Your task to perform on an android device: Show me some nice wallpapers for my tablet Image 0: 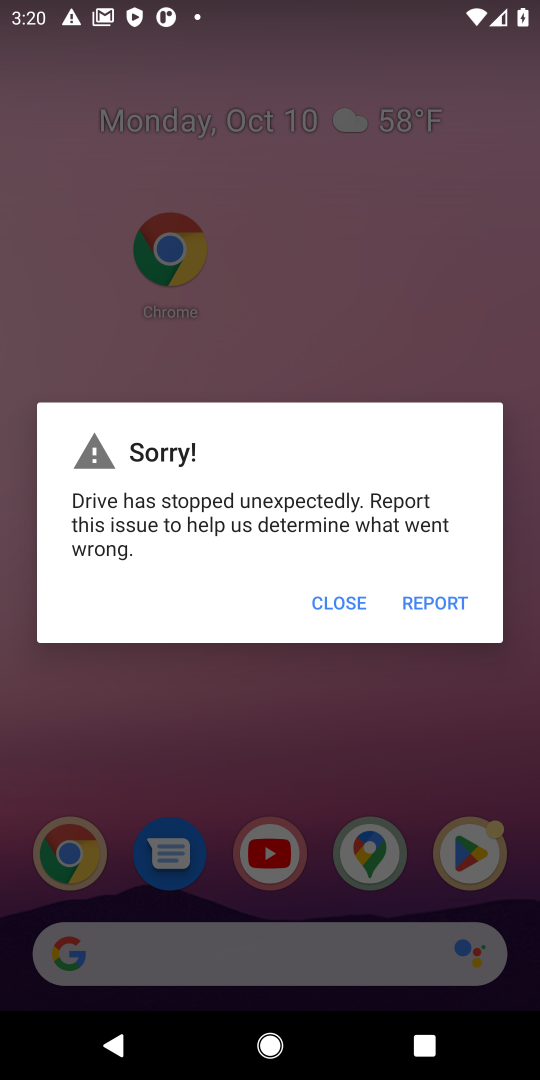
Step 0: click (337, 602)
Your task to perform on an android device: Show me some nice wallpapers for my tablet Image 1: 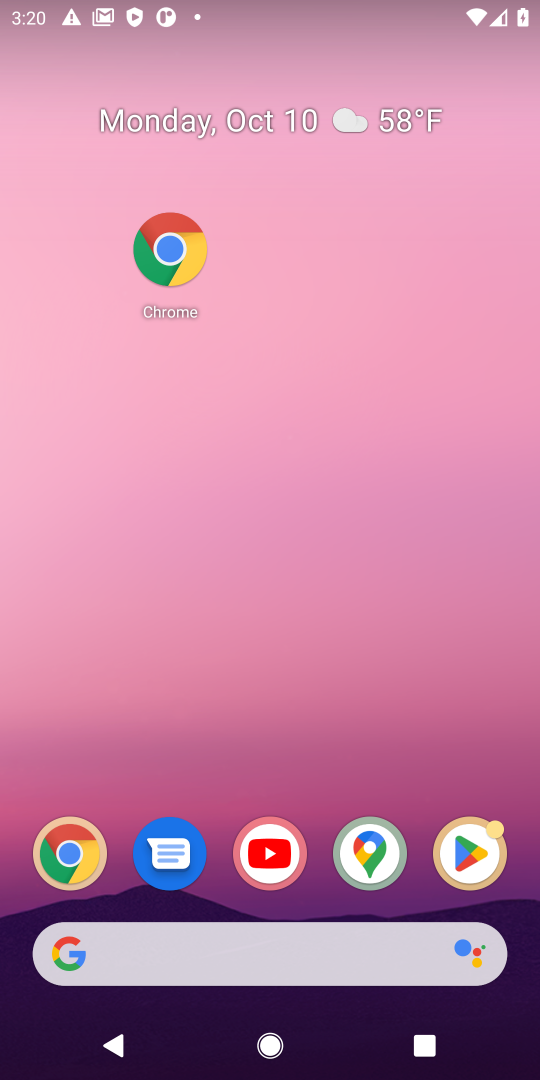
Step 1: click (181, 251)
Your task to perform on an android device: Show me some nice wallpapers for my tablet Image 2: 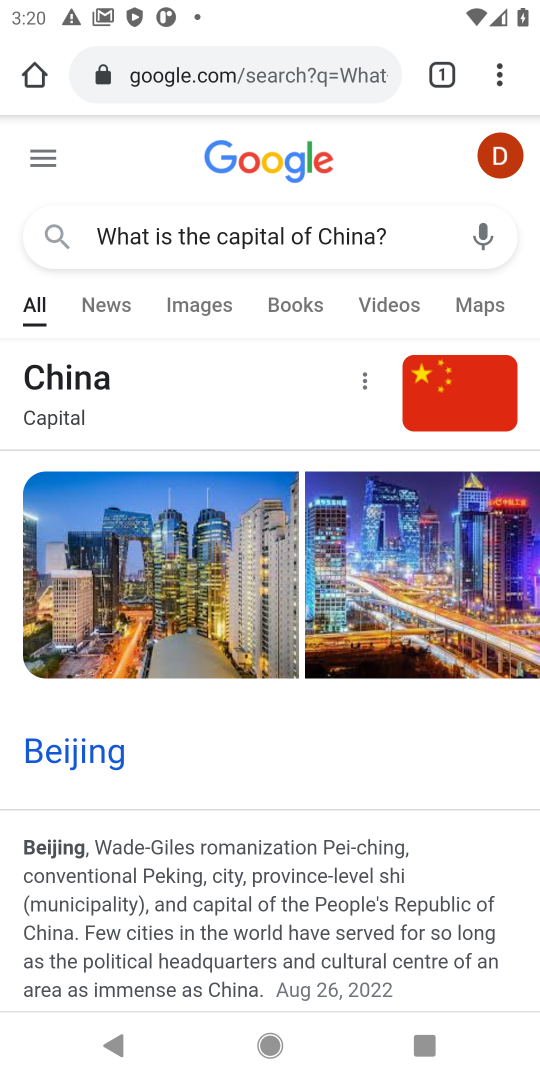
Step 2: click (193, 79)
Your task to perform on an android device: Show me some nice wallpapers for my tablet Image 3: 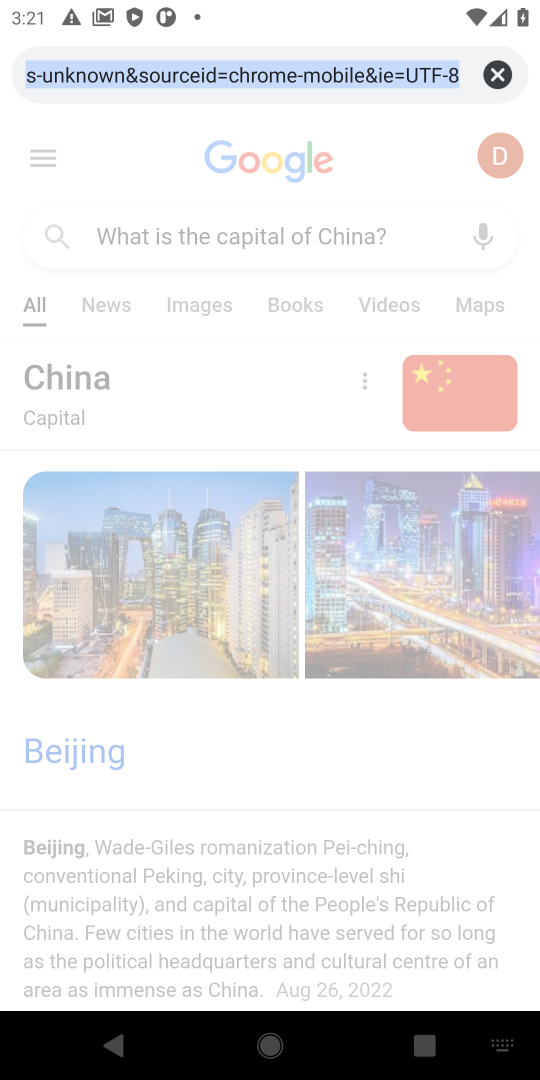
Step 3: type "Show me some nice wallpapers for my tablet"
Your task to perform on an android device: Show me some nice wallpapers for my tablet Image 4: 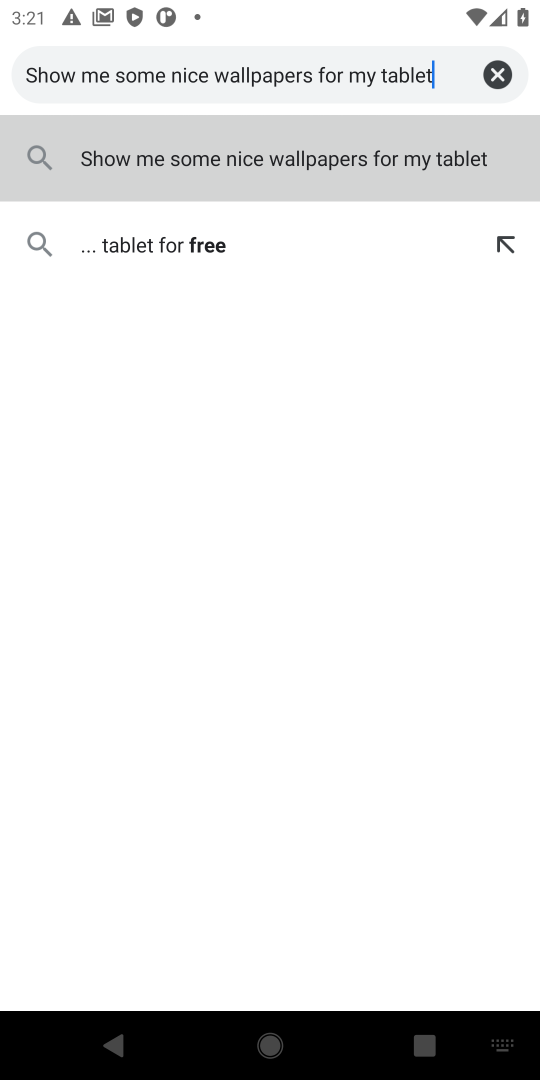
Step 4: click (415, 155)
Your task to perform on an android device: Show me some nice wallpapers for my tablet Image 5: 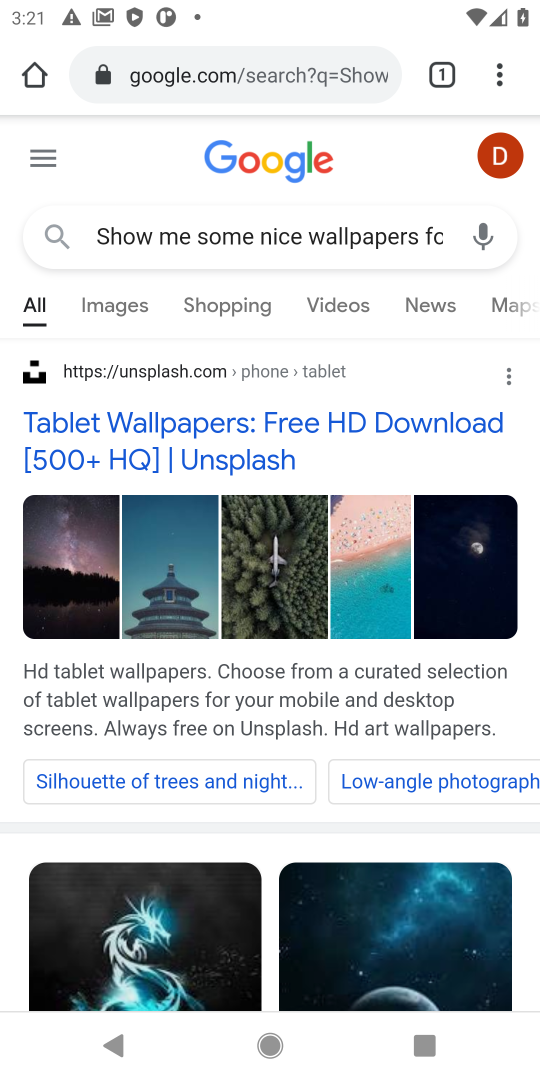
Step 5: click (237, 461)
Your task to perform on an android device: Show me some nice wallpapers for my tablet Image 6: 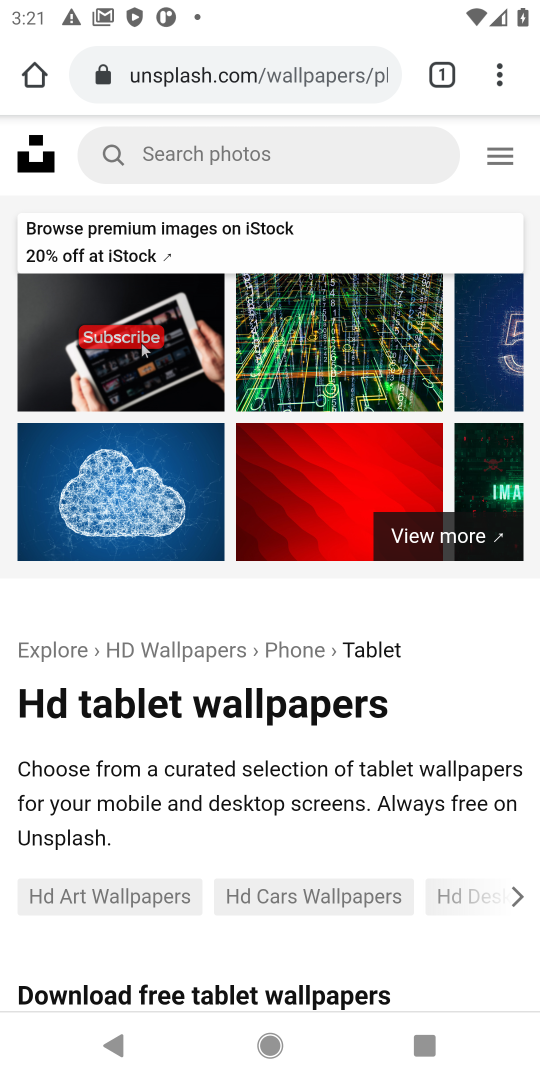
Step 6: click (235, 713)
Your task to perform on an android device: Show me some nice wallpapers for my tablet Image 7: 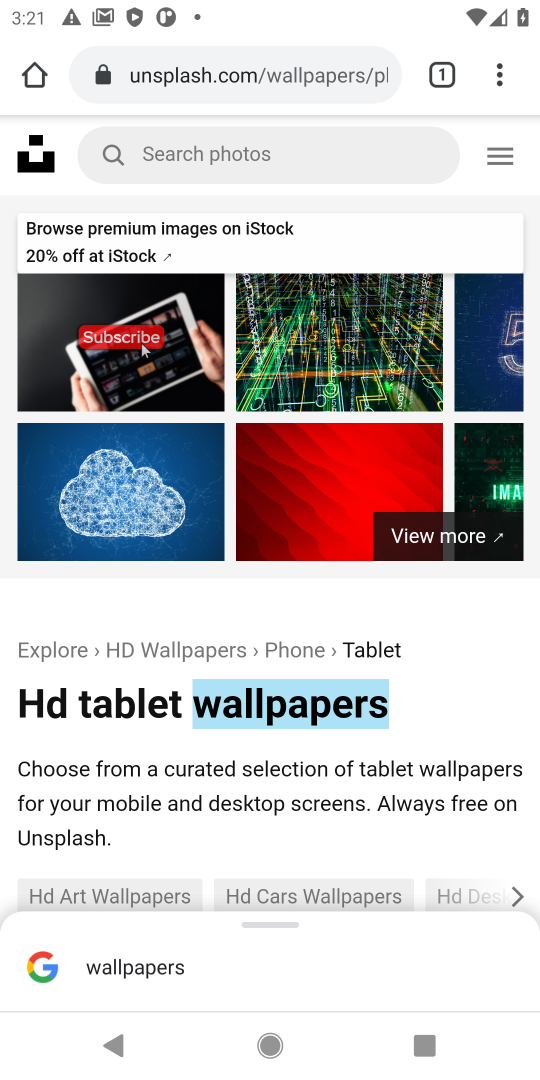
Step 7: click (359, 379)
Your task to perform on an android device: Show me some nice wallpapers for my tablet Image 8: 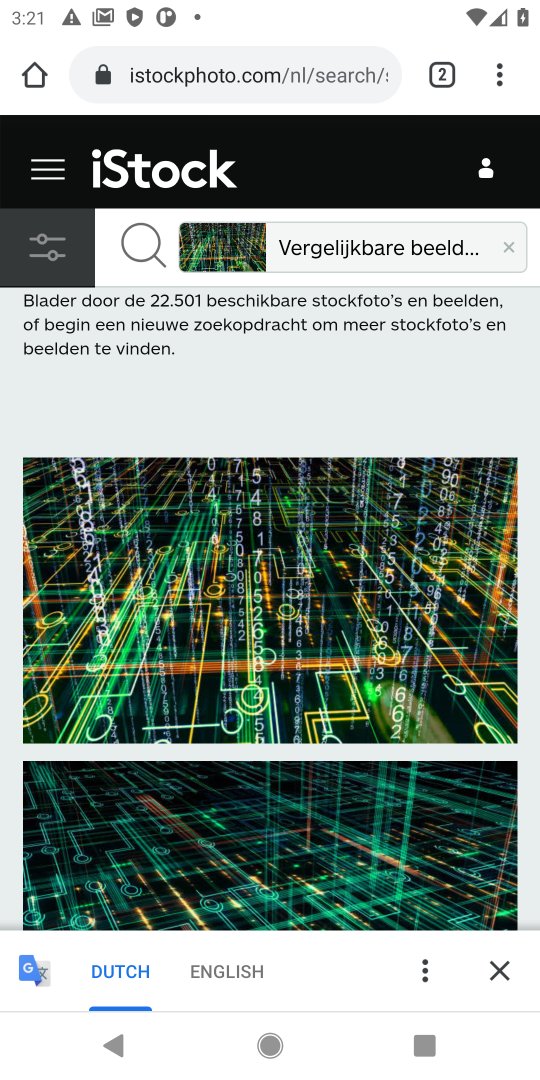
Step 8: task complete